Your task to perform on an android device: Show me productivity apps on the Play Store Image 0: 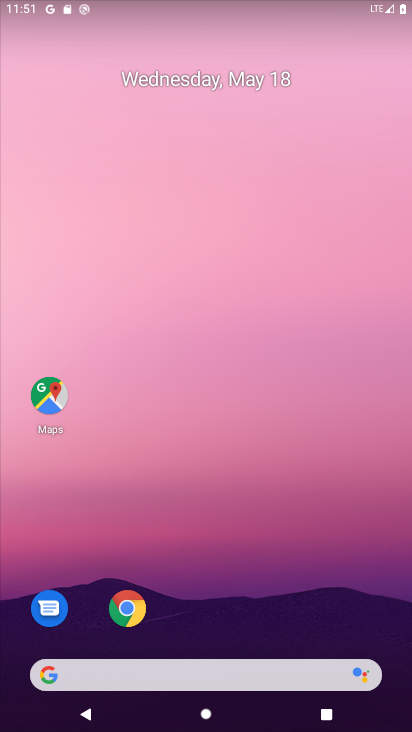
Step 0: drag from (222, 591) to (150, 248)
Your task to perform on an android device: Show me productivity apps on the Play Store Image 1: 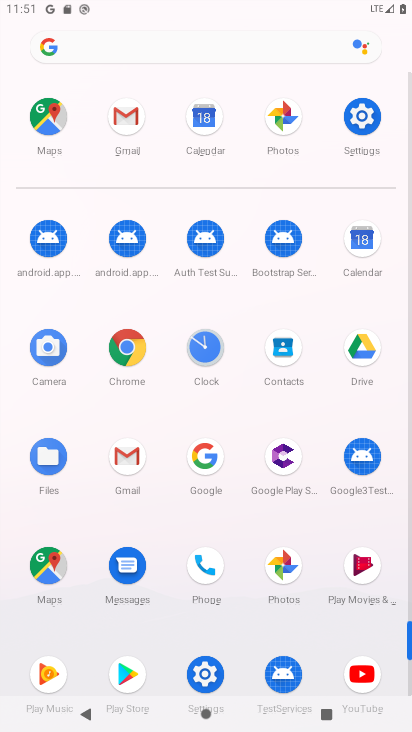
Step 1: click (133, 674)
Your task to perform on an android device: Show me productivity apps on the Play Store Image 2: 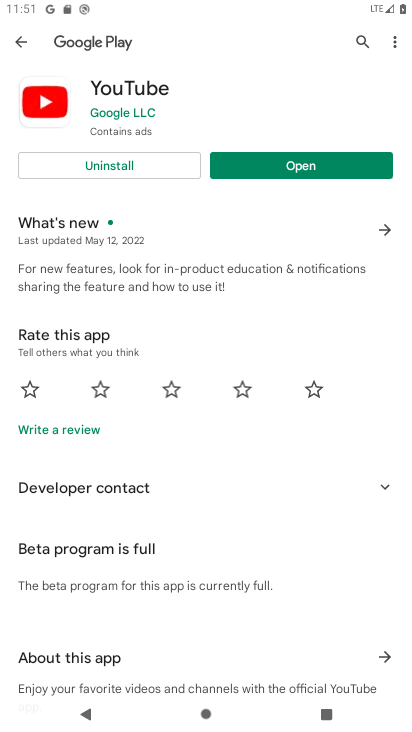
Step 2: click (16, 37)
Your task to perform on an android device: Show me productivity apps on the Play Store Image 3: 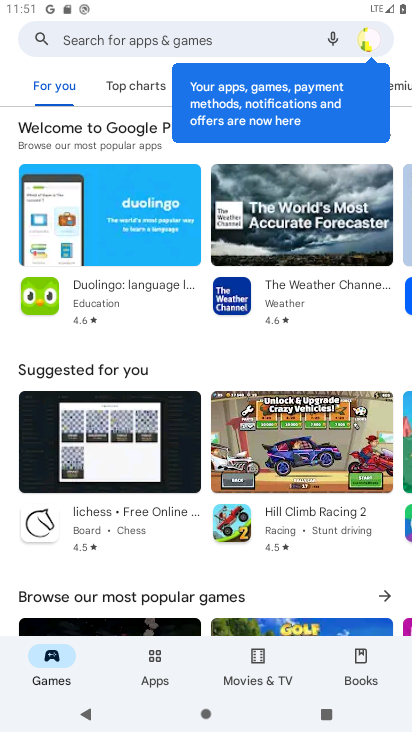
Step 3: click (154, 661)
Your task to perform on an android device: Show me productivity apps on the Play Store Image 4: 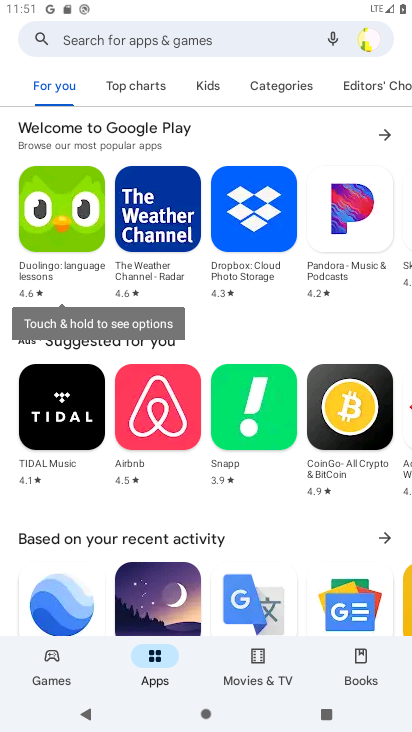
Step 4: click (286, 87)
Your task to perform on an android device: Show me productivity apps on the Play Store Image 5: 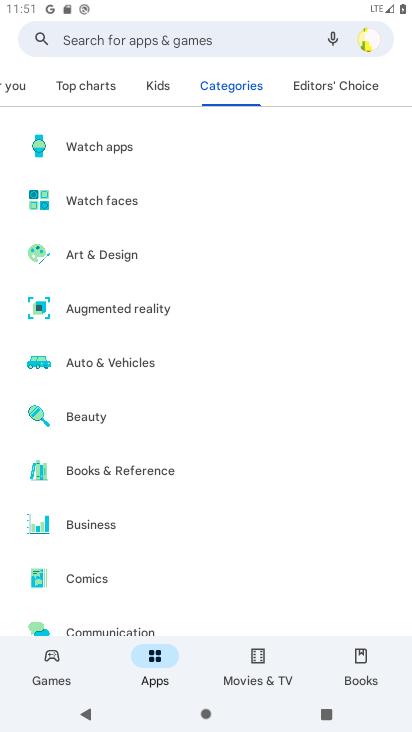
Step 5: drag from (147, 469) to (206, 0)
Your task to perform on an android device: Show me productivity apps on the Play Store Image 6: 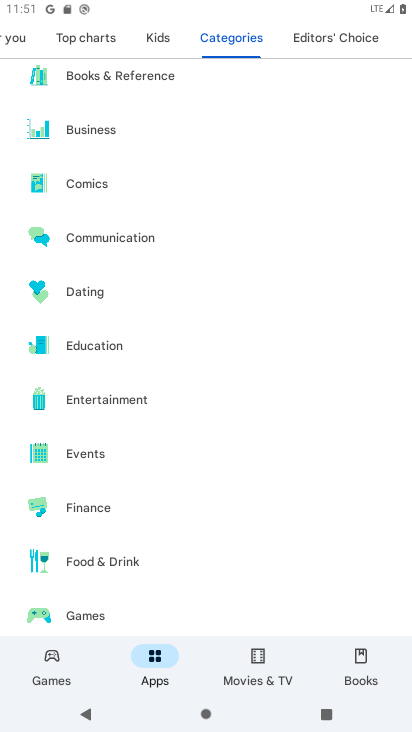
Step 6: drag from (126, 575) to (156, 90)
Your task to perform on an android device: Show me productivity apps on the Play Store Image 7: 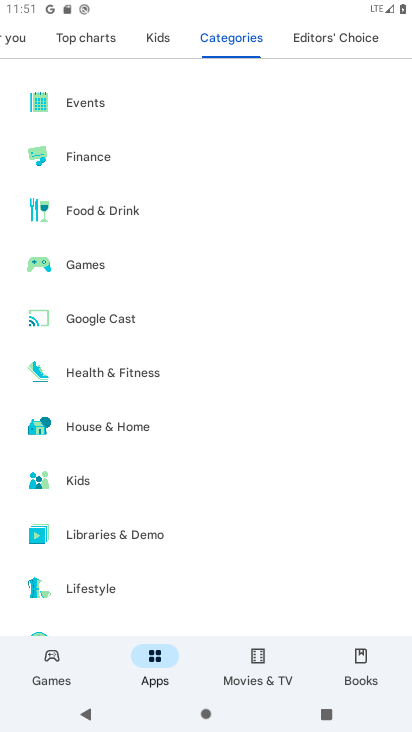
Step 7: drag from (133, 597) to (128, 110)
Your task to perform on an android device: Show me productivity apps on the Play Store Image 8: 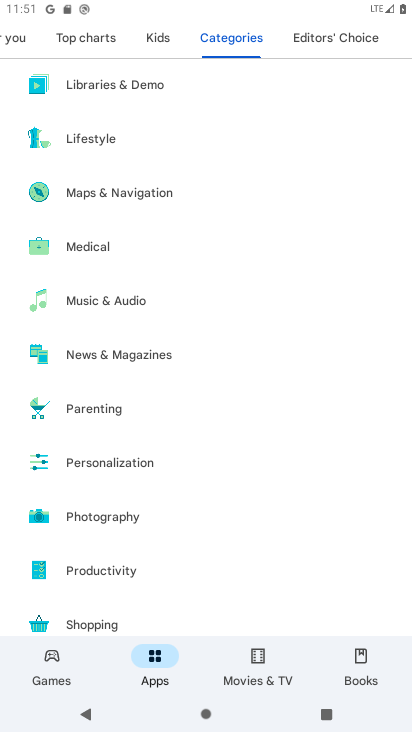
Step 8: click (88, 574)
Your task to perform on an android device: Show me productivity apps on the Play Store Image 9: 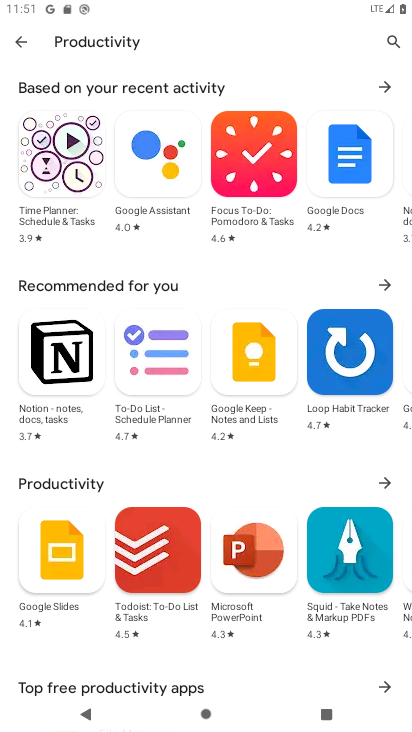
Step 9: task complete